Your task to perform on an android device: Go to calendar. Show me events next week Image 0: 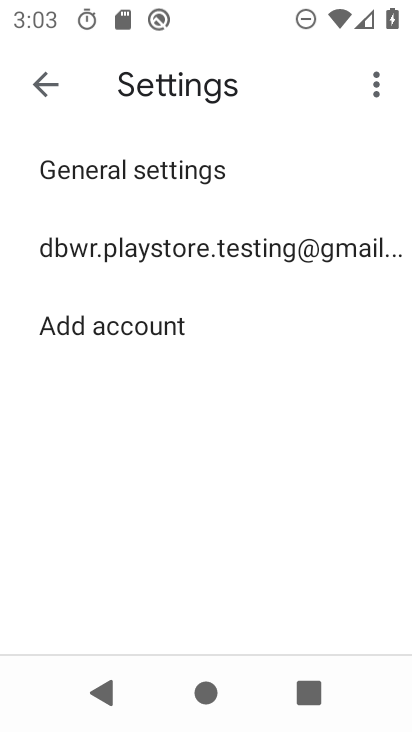
Step 0: press home button
Your task to perform on an android device: Go to calendar. Show me events next week Image 1: 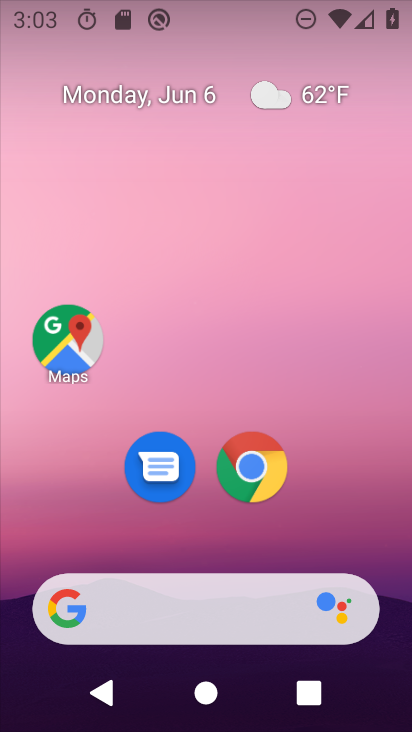
Step 1: drag from (189, 483) to (175, 86)
Your task to perform on an android device: Go to calendar. Show me events next week Image 2: 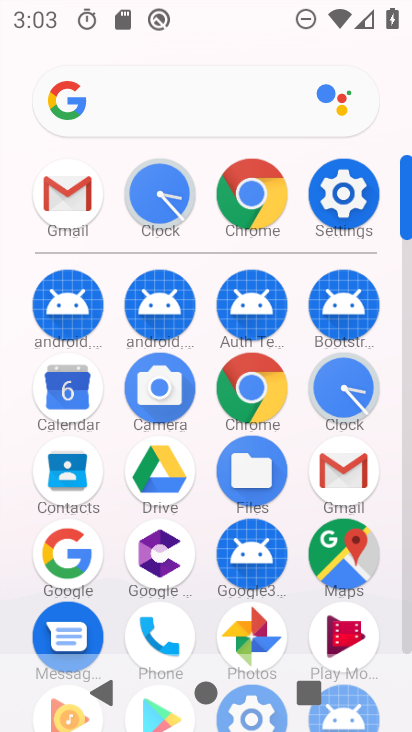
Step 2: click (58, 399)
Your task to perform on an android device: Go to calendar. Show me events next week Image 3: 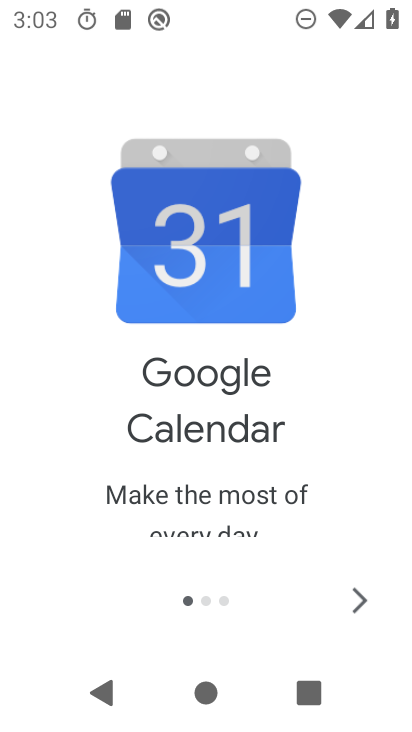
Step 3: click (360, 600)
Your task to perform on an android device: Go to calendar. Show me events next week Image 4: 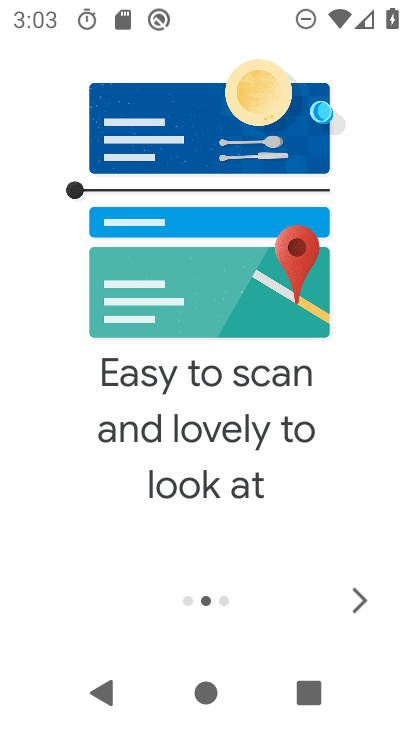
Step 4: click (360, 600)
Your task to perform on an android device: Go to calendar. Show me events next week Image 5: 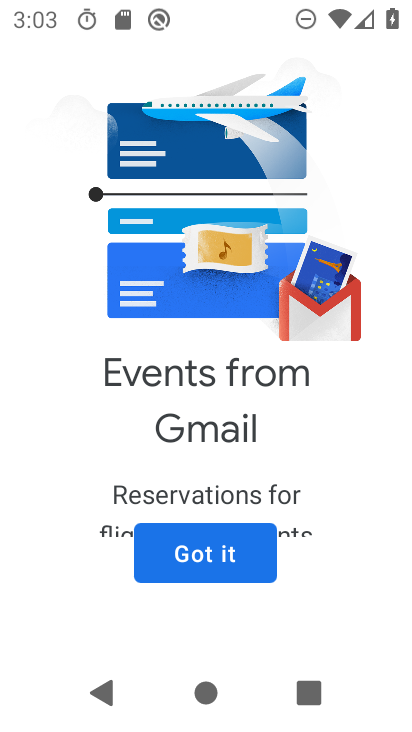
Step 5: click (360, 600)
Your task to perform on an android device: Go to calendar. Show me events next week Image 6: 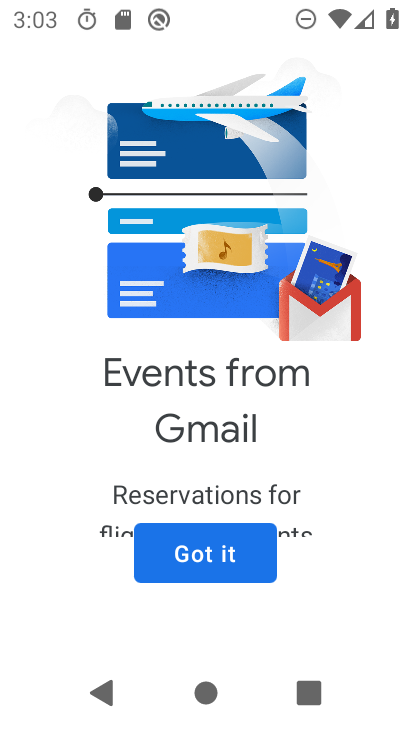
Step 6: click (224, 554)
Your task to perform on an android device: Go to calendar. Show me events next week Image 7: 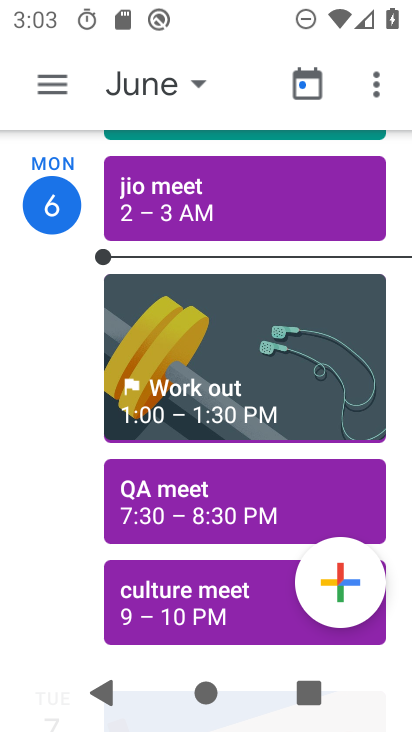
Step 7: click (49, 94)
Your task to perform on an android device: Go to calendar. Show me events next week Image 8: 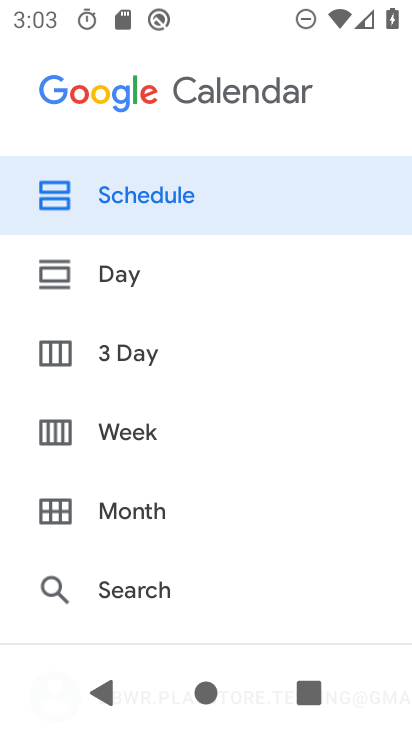
Step 8: click (121, 418)
Your task to perform on an android device: Go to calendar. Show me events next week Image 9: 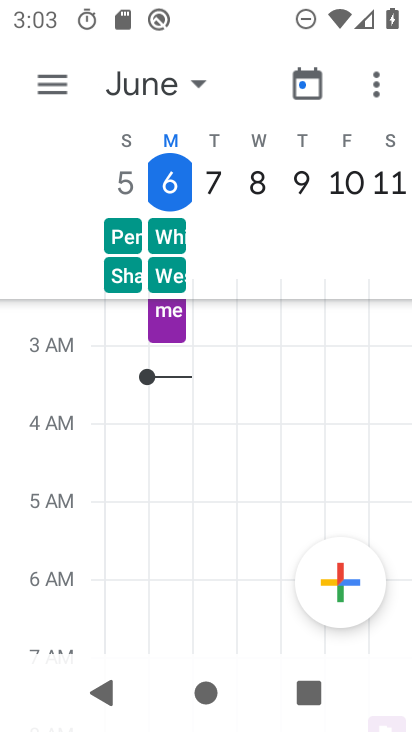
Step 9: click (132, 92)
Your task to perform on an android device: Go to calendar. Show me events next week Image 10: 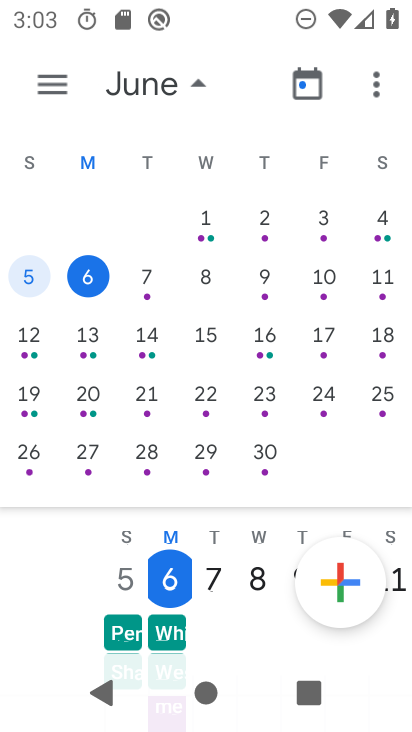
Step 10: click (36, 343)
Your task to perform on an android device: Go to calendar. Show me events next week Image 11: 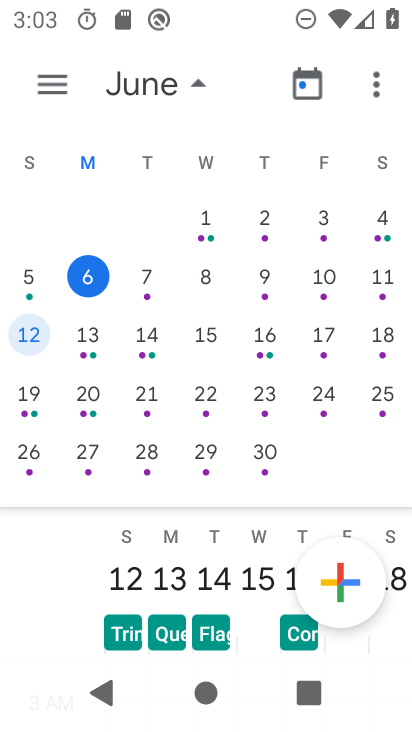
Step 11: task complete